Your task to perform on an android device: toggle notifications settings in the gmail app Image 0: 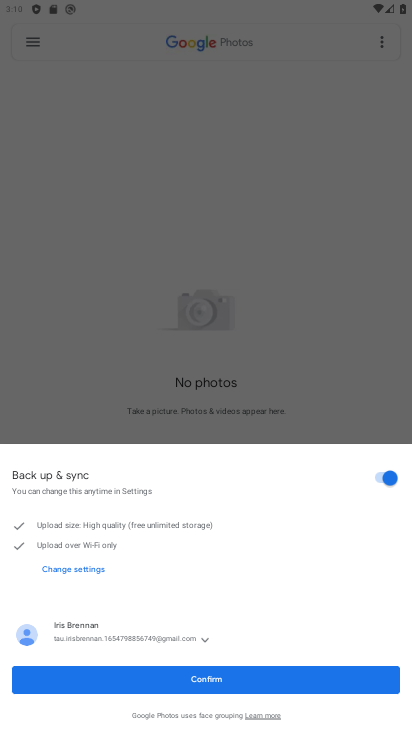
Step 0: click (192, 689)
Your task to perform on an android device: toggle notifications settings in the gmail app Image 1: 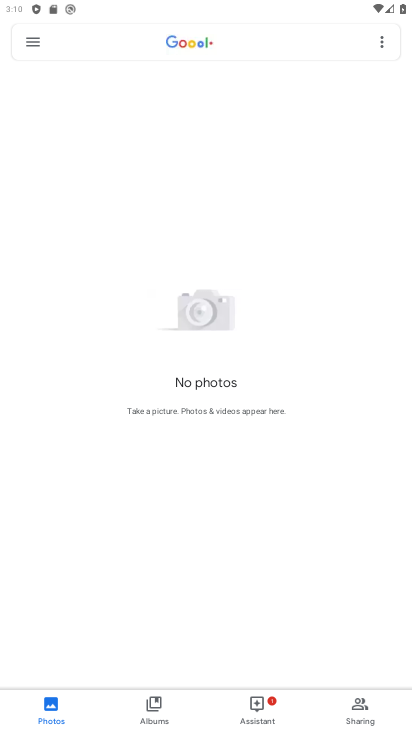
Step 1: press back button
Your task to perform on an android device: toggle notifications settings in the gmail app Image 2: 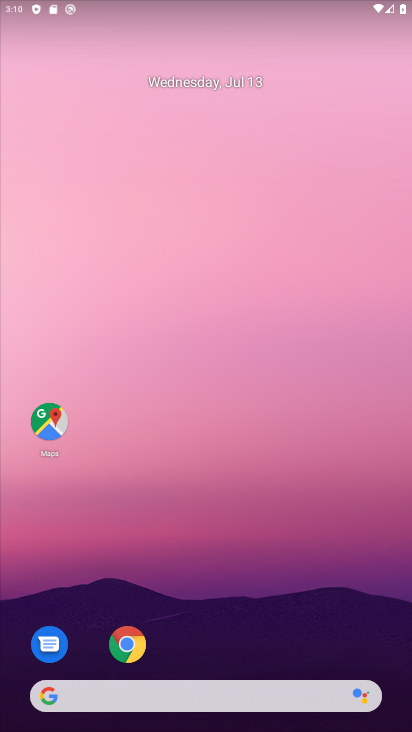
Step 2: drag from (193, 592) to (244, 10)
Your task to perform on an android device: toggle notifications settings in the gmail app Image 3: 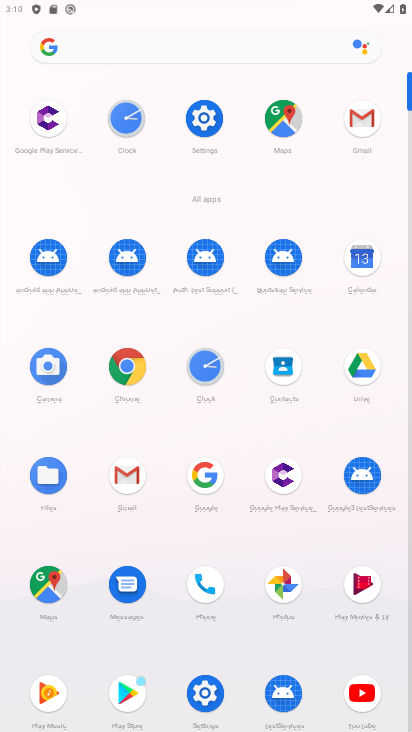
Step 3: click (205, 124)
Your task to perform on an android device: toggle notifications settings in the gmail app Image 4: 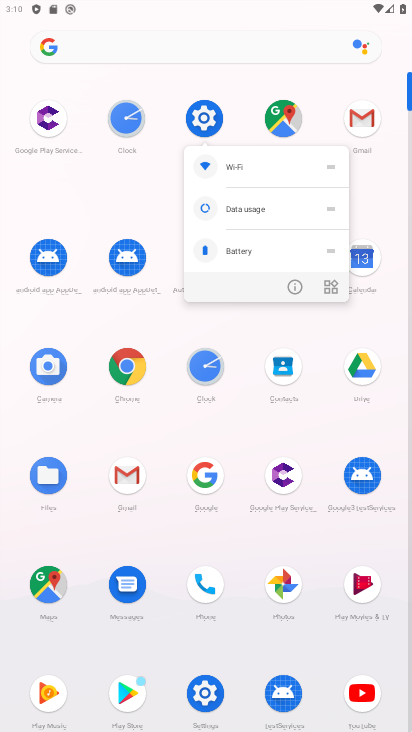
Step 4: click (210, 122)
Your task to perform on an android device: toggle notifications settings in the gmail app Image 5: 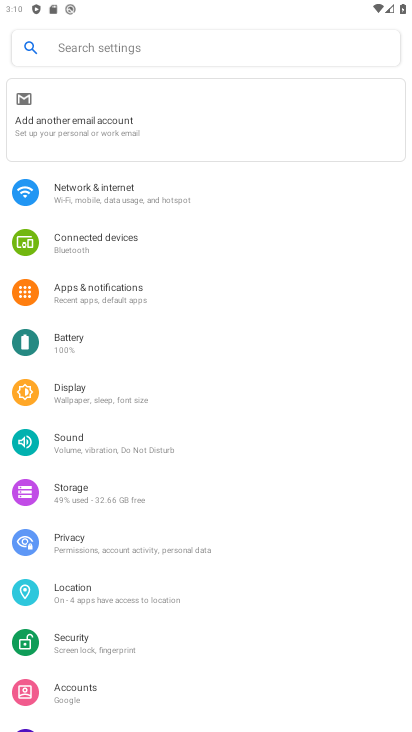
Step 5: click (116, 289)
Your task to perform on an android device: toggle notifications settings in the gmail app Image 6: 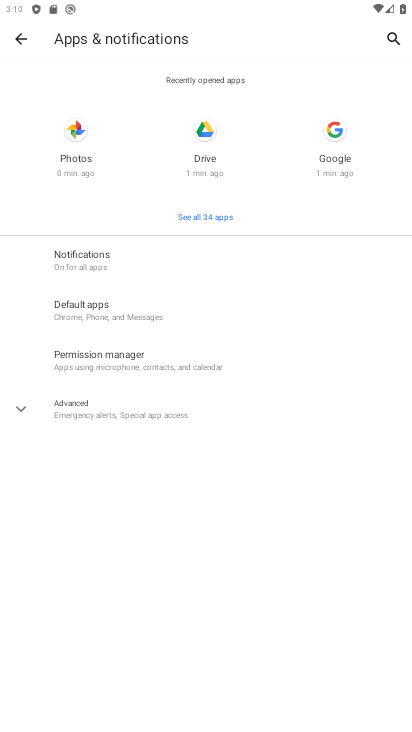
Step 6: press back button
Your task to perform on an android device: toggle notifications settings in the gmail app Image 7: 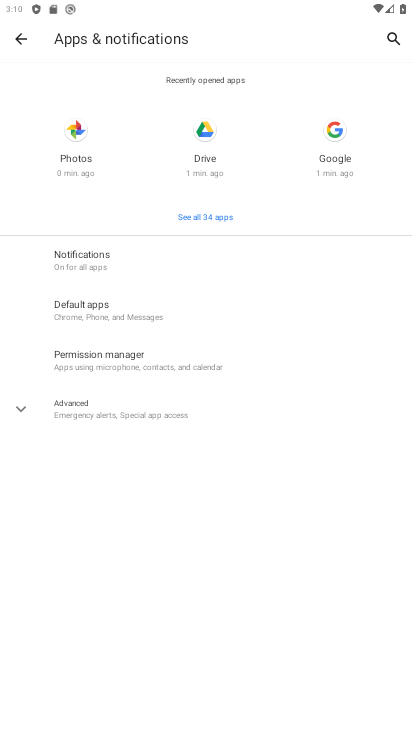
Step 7: press back button
Your task to perform on an android device: toggle notifications settings in the gmail app Image 8: 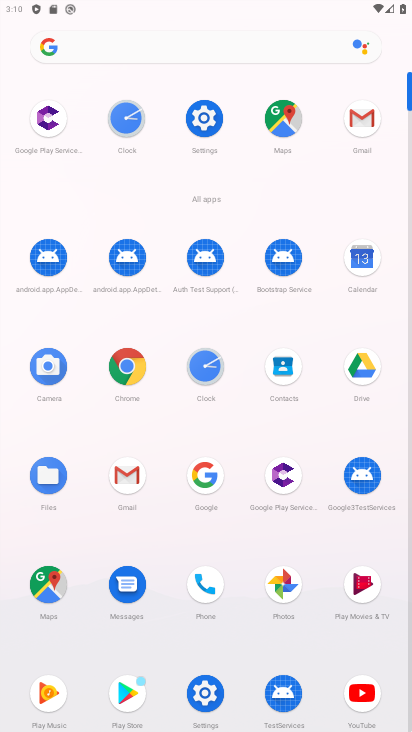
Step 8: press back button
Your task to perform on an android device: toggle notifications settings in the gmail app Image 9: 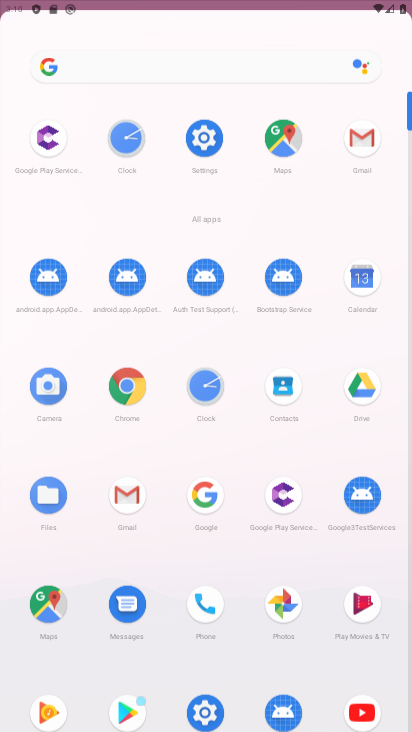
Step 9: press back button
Your task to perform on an android device: toggle notifications settings in the gmail app Image 10: 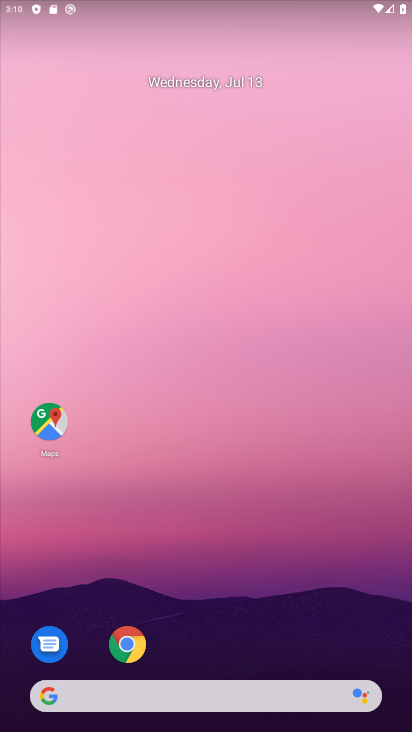
Step 10: drag from (195, 598) to (246, 51)
Your task to perform on an android device: toggle notifications settings in the gmail app Image 11: 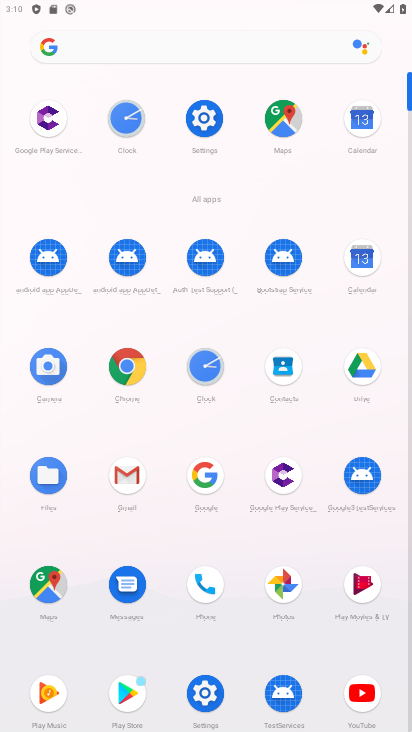
Step 11: click (135, 475)
Your task to perform on an android device: toggle notifications settings in the gmail app Image 12: 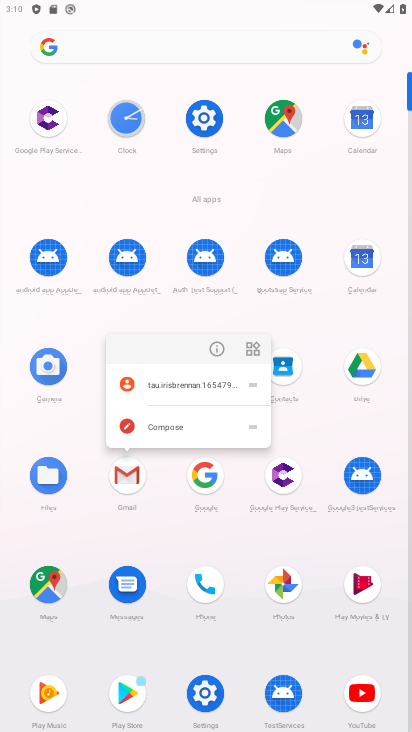
Step 12: click (217, 351)
Your task to perform on an android device: toggle notifications settings in the gmail app Image 13: 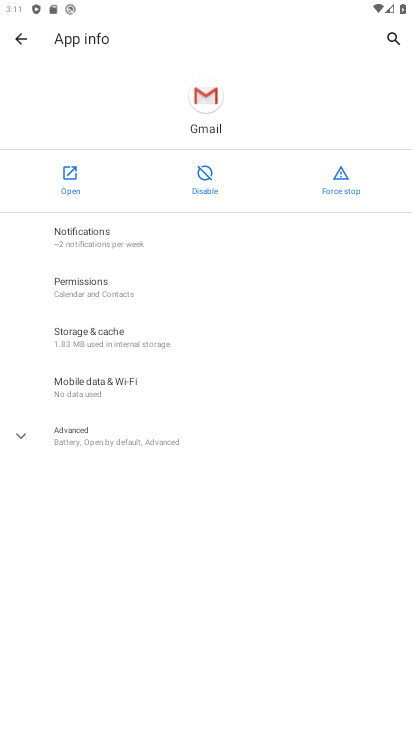
Step 13: click (120, 240)
Your task to perform on an android device: toggle notifications settings in the gmail app Image 14: 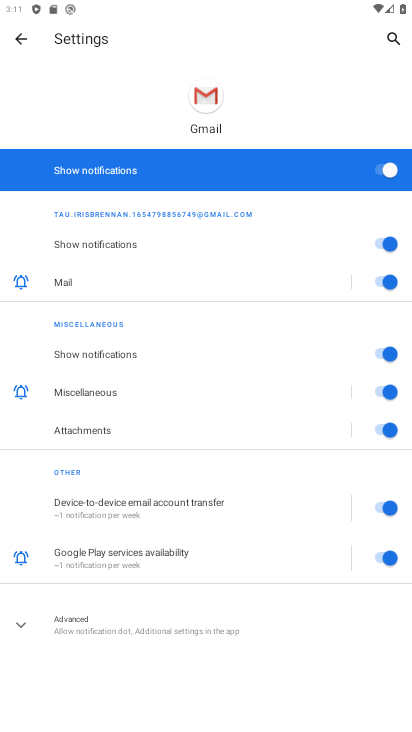
Step 14: click (381, 169)
Your task to perform on an android device: toggle notifications settings in the gmail app Image 15: 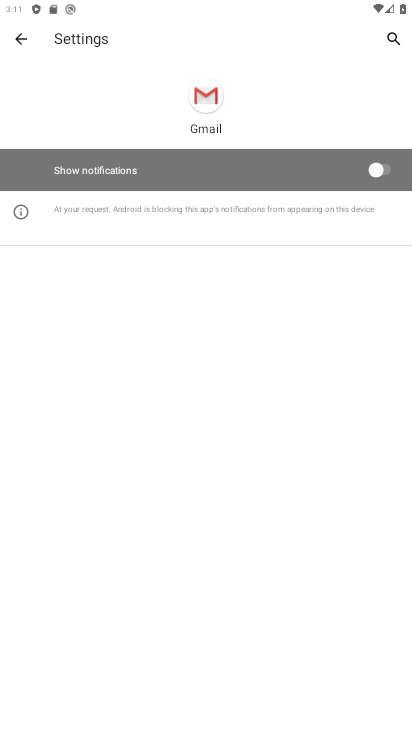
Step 15: task complete